Your task to perform on an android device: Open calendar and show me the fourth week of next month Image 0: 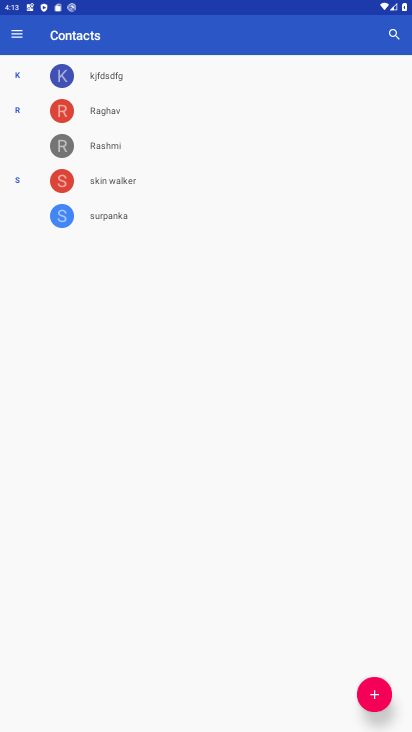
Step 0: press home button
Your task to perform on an android device: Open calendar and show me the fourth week of next month Image 1: 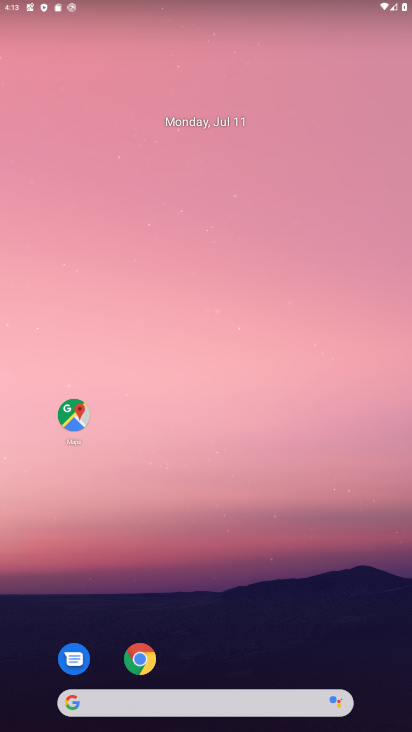
Step 1: click (188, 672)
Your task to perform on an android device: Open calendar and show me the fourth week of next month Image 2: 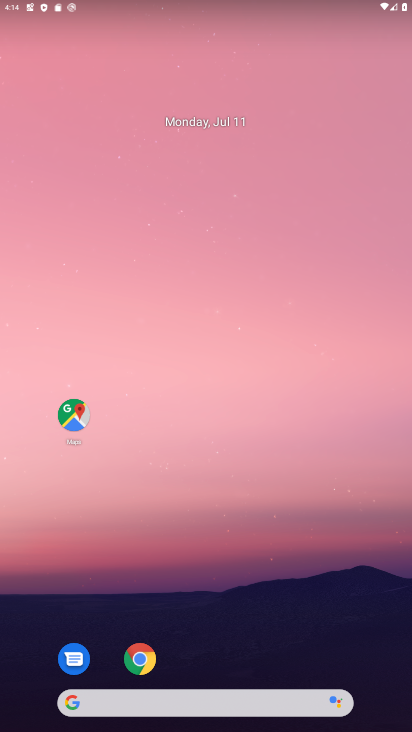
Step 2: drag from (180, 173) to (179, 7)
Your task to perform on an android device: Open calendar and show me the fourth week of next month Image 3: 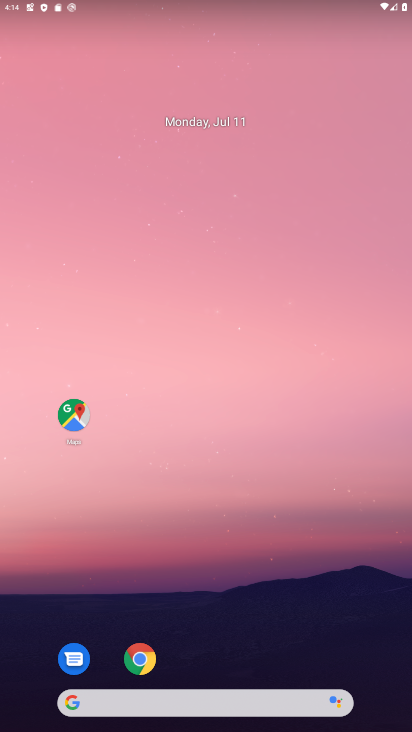
Step 3: drag from (182, 573) to (167, 30)
Your task to perform on an android device: Open calendar and show me the fourth week of next month Image 4: 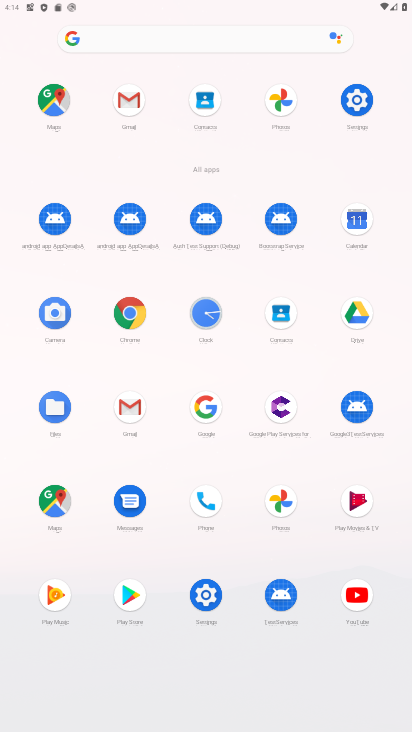
Step 4: click (351, 243)
Your task to perform on an android device: Open calendar and show me the fourth week of next month Image 5: 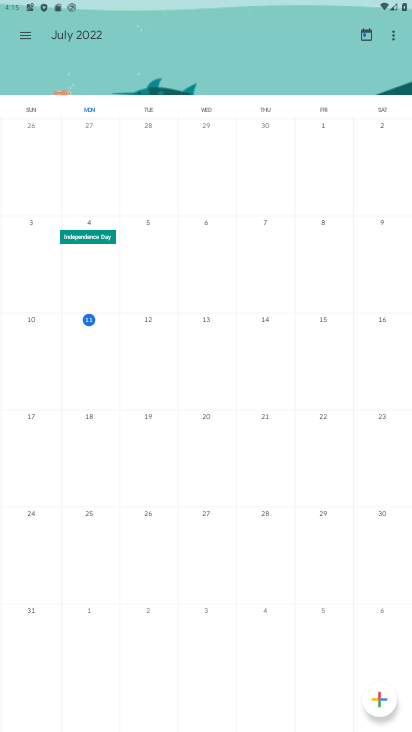
Step 5: task complete